Your task to perform on an android device: What's the weather? Image 0: 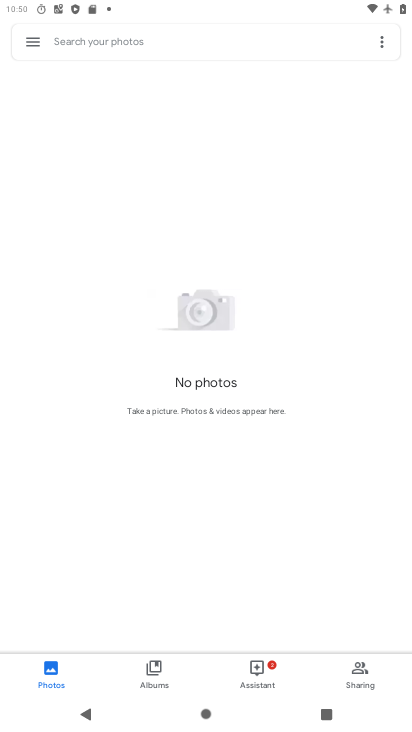
Step 0: press home button
Your task to perform on an android device: What's the weather? Image 1: 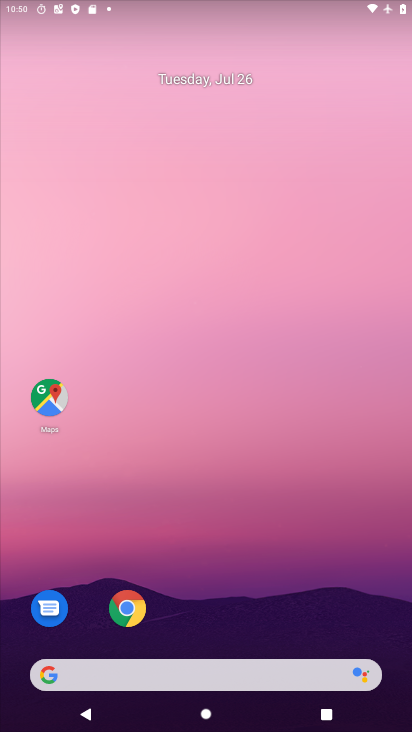
Step 1: drag from (196, 620) to (196, 56)
Your task to perform on an android device: What's the weather? Image 2: 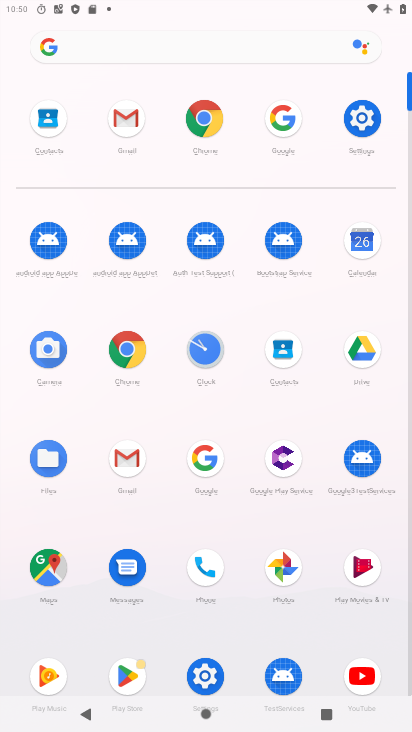
Step 2: click (210, 465)
Your task to perform on an android device: What's the weather? Image 3: 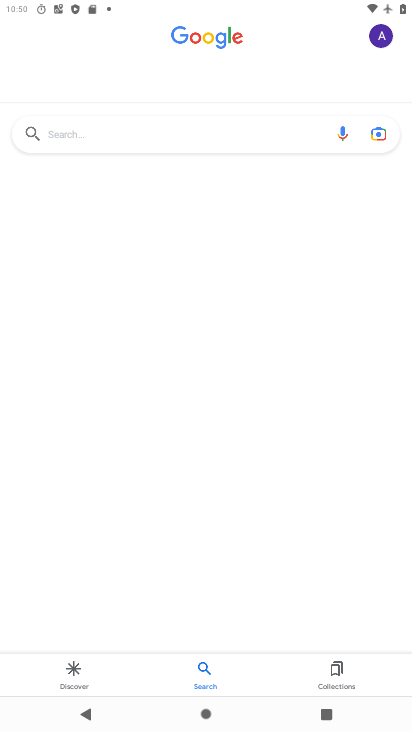
Step 3: click (201, 125)
Your task to perform on an android device: What's the weather? Image 4: 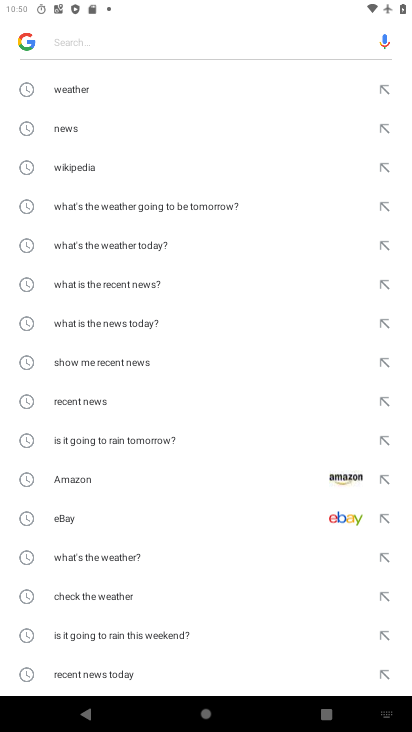
Step 4: click (76, 93)
Your task to perform on an android device: What's the weather? Image 5: 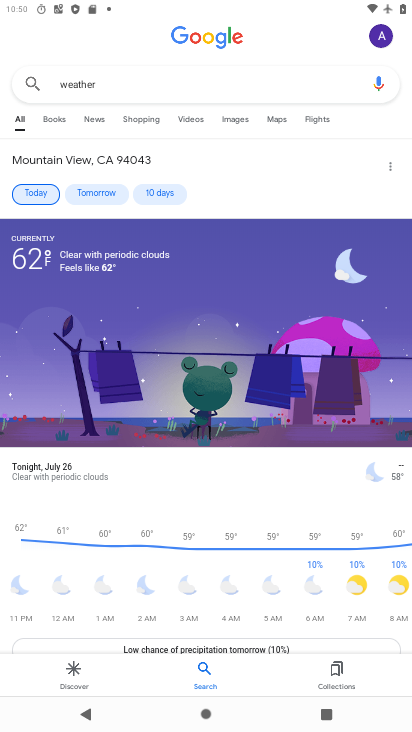
Step 5: task complete